Your task to perform on an android device: toggle improve location accuracy Image 0: 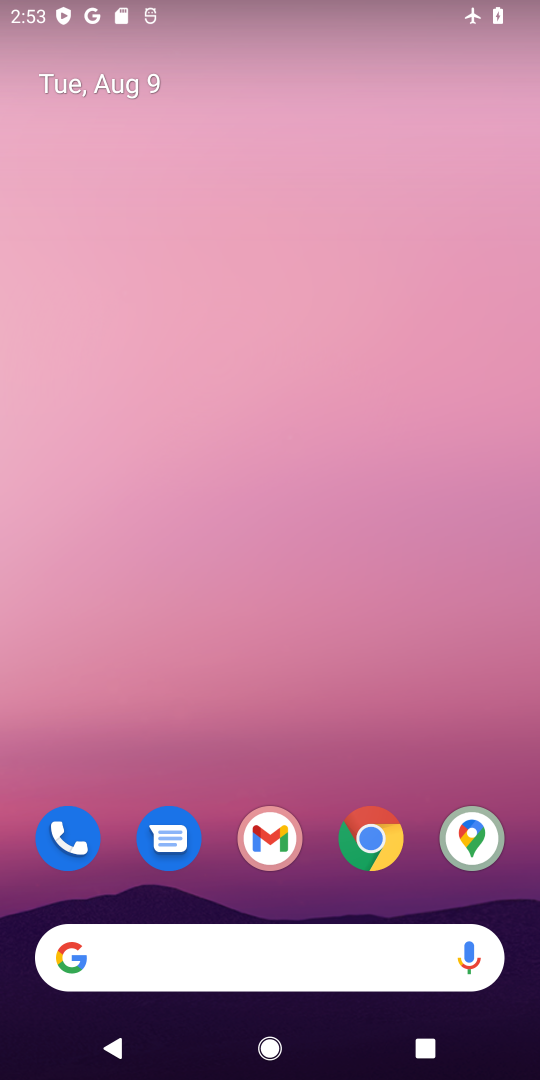
Step 0: drag from (360, 745) to (536, 98)
Your task to perform on an android device: toggle improve location accuracy Image 1: 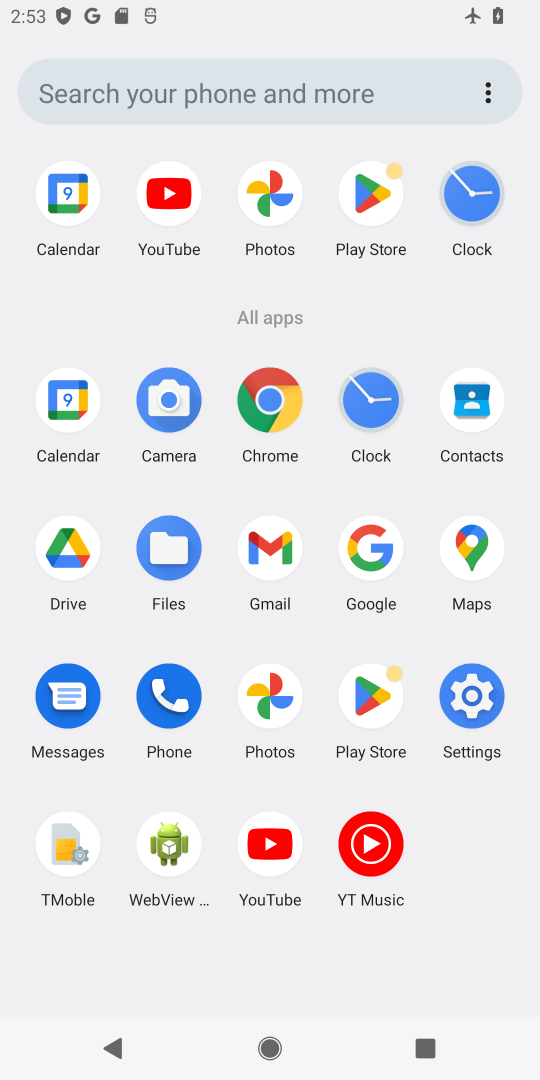
Step 1: click (479, 689)
Your task to perform on an android device: toggle improve location accuracy Image 2: 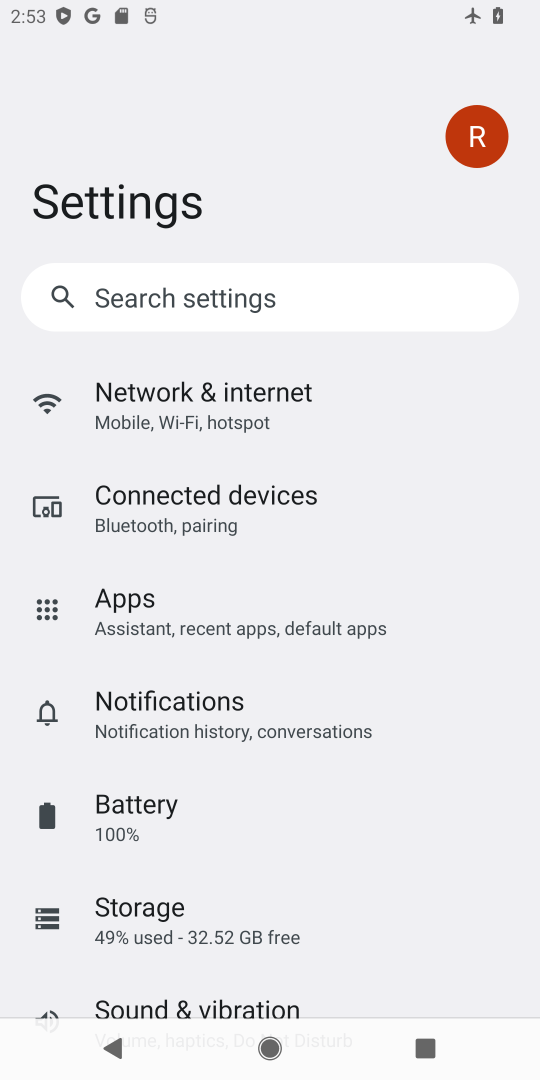
Step 2: drag from (343, 820) to (508, 279)
Your task to perform on an android device: toggle improve location accuracy Image 3: 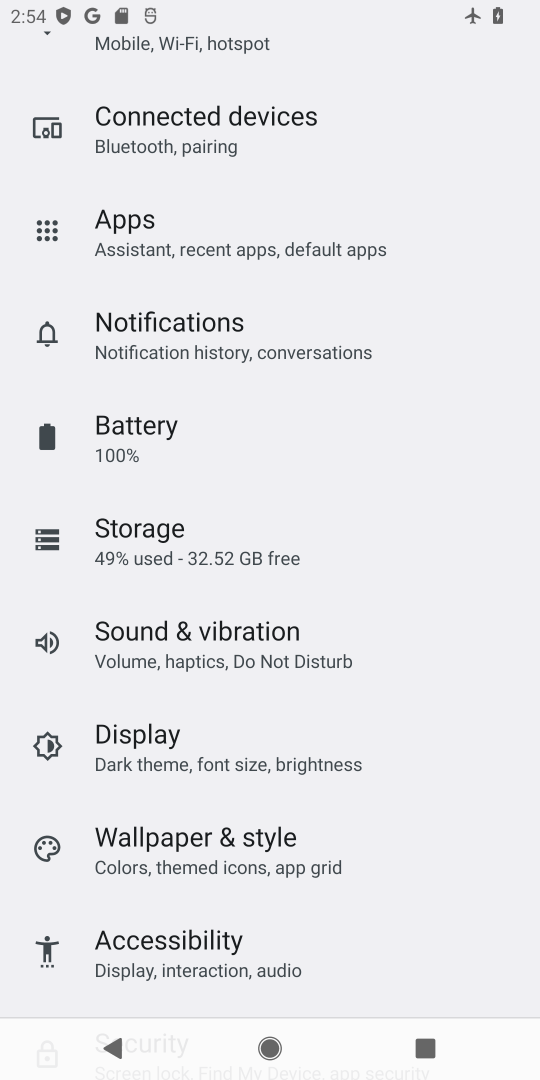
Step 3: drag from (341, 274) to (382, 225)
Your task to perform on an android device: toggle improve location accuracy Image 4: 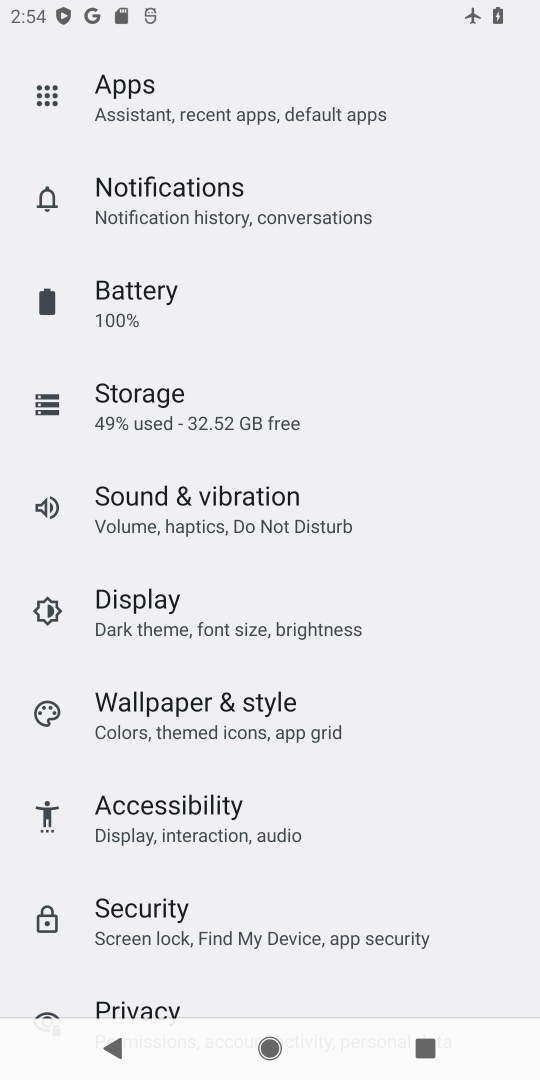
Step 4: drag from (212, 826) to (316, 425)
Your task to perform on an android device: toggle improve location accuracy Image 5: 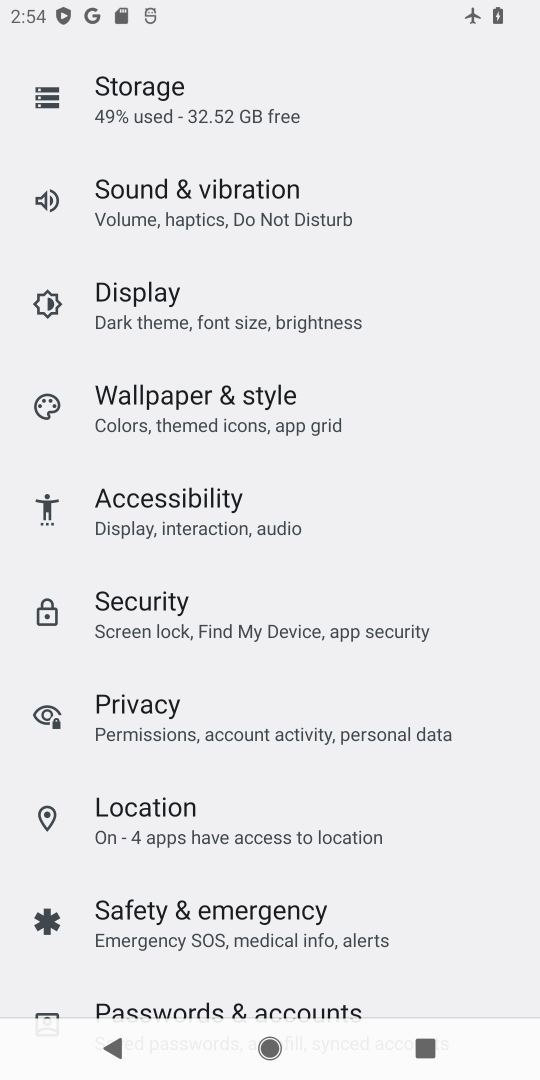
Step 5: click (171, 810)
Your task to perform on an android device: toggle improve location accuracy Image 6: 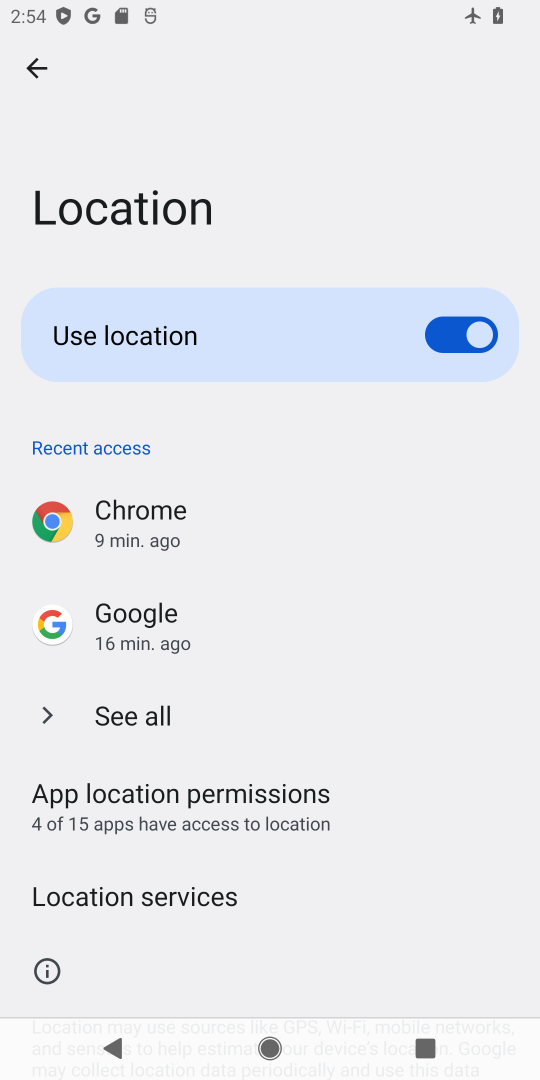
Step 6: drag from (351, 823) to (393, 267)
Your task to perform on an android device: toggle improve location accuracy Image 7: 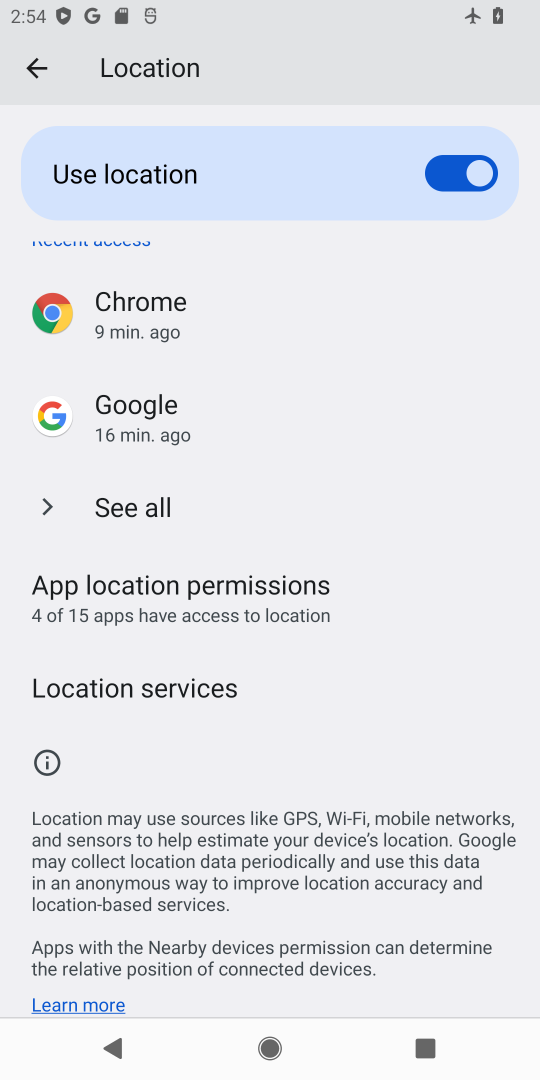
Step 7: click (175, 705)
Your task to perform on an android device: toggle improve location accuracy Image 8: 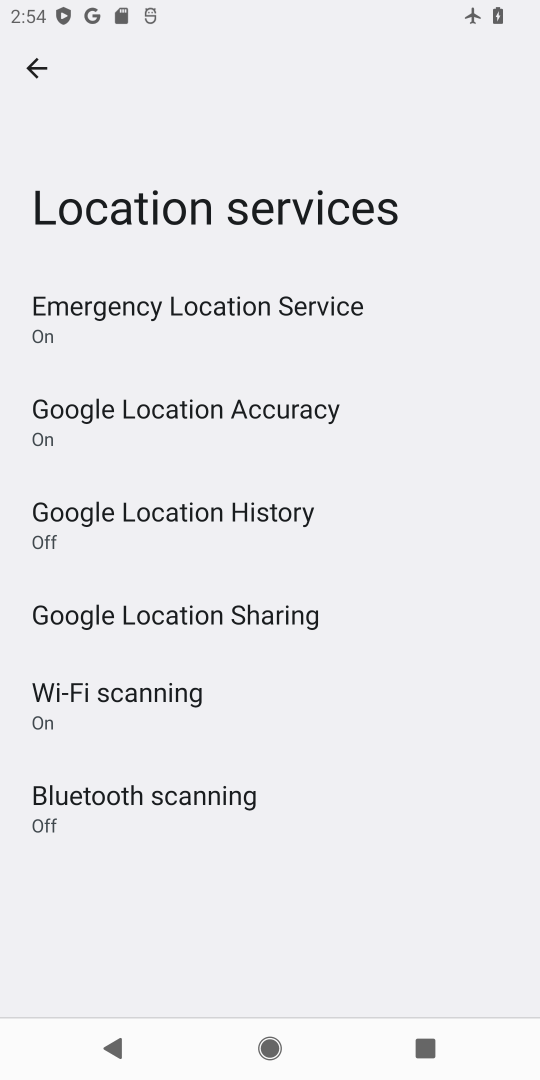
Step 8: click (222, 404)
Your task to perform on an android device: toggle improve location accuracy Image 9: 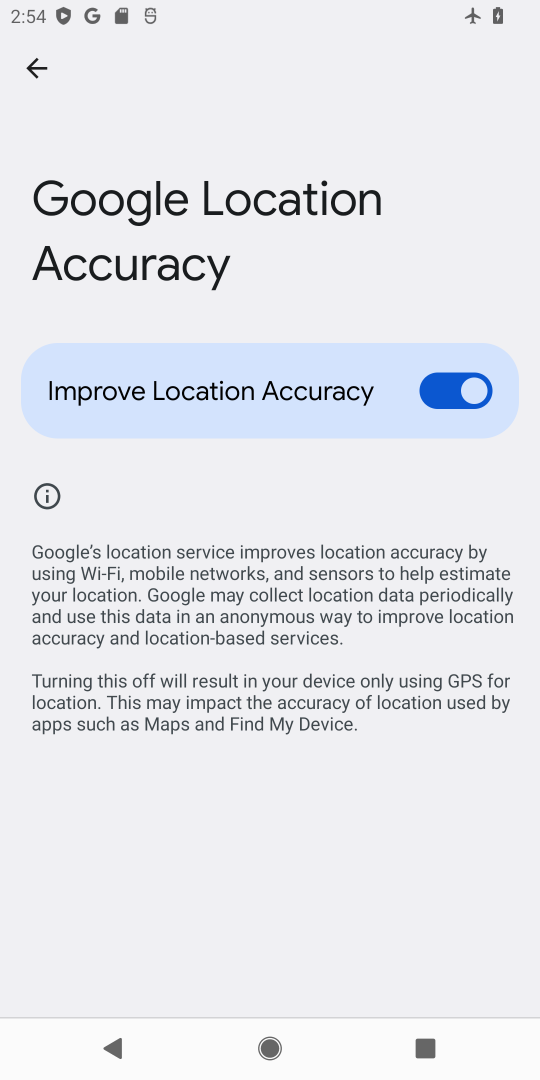
Step 9: click (435, 382)
Your task to perform on an android device: toggle improve location accuracy Image 10: 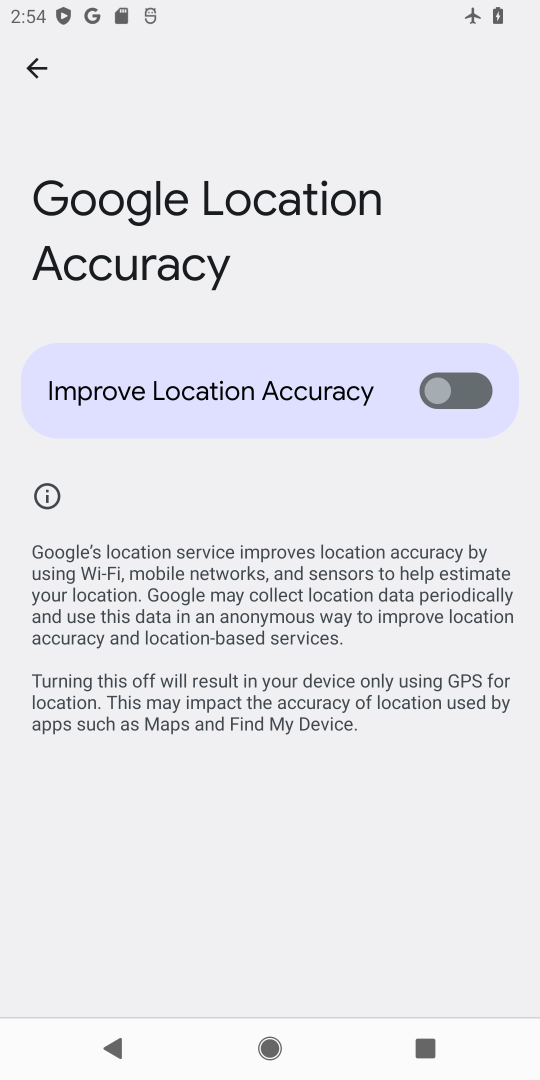
Step 10: task complete